Your task to perform on an android device: change the upload size in google photos Image 0: 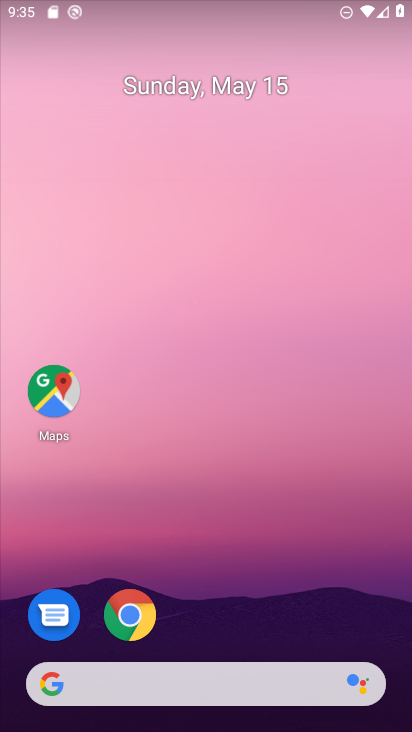
Step 0: drag from (177, 652) to (270, 125)
Your task to perform on an android device: change the upload size in google photos Image 1: 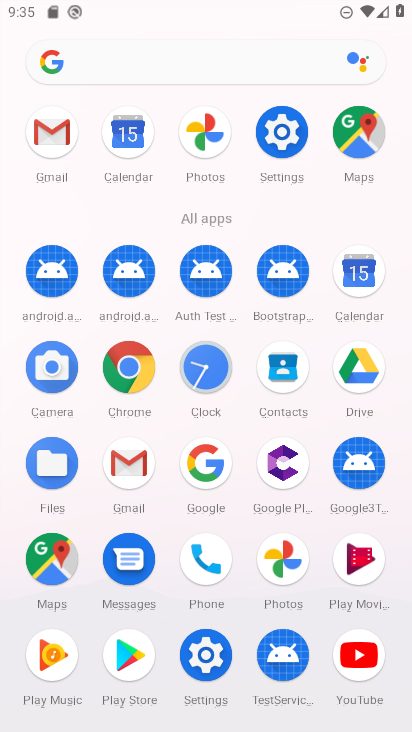
Step 1: click (284, 558)
Your task to perform on an android device: change the upload size in google photos Image 2: 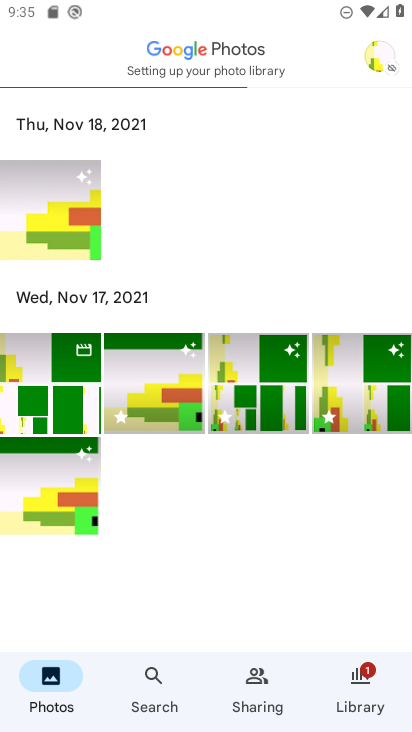
Step 2: click (373, 69)
Your task to perform on an android device: change the upload size in google photos Image 3: 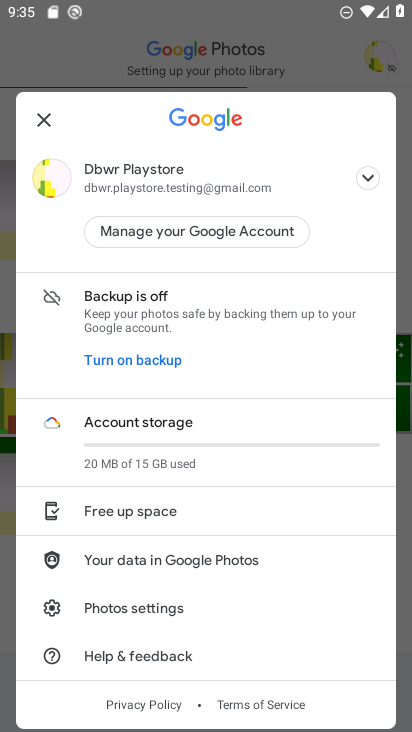
Step 3: drag from (252, 649) to (281, 505)
Your task to perform on an android device: change the upload size in google photos Image 4: 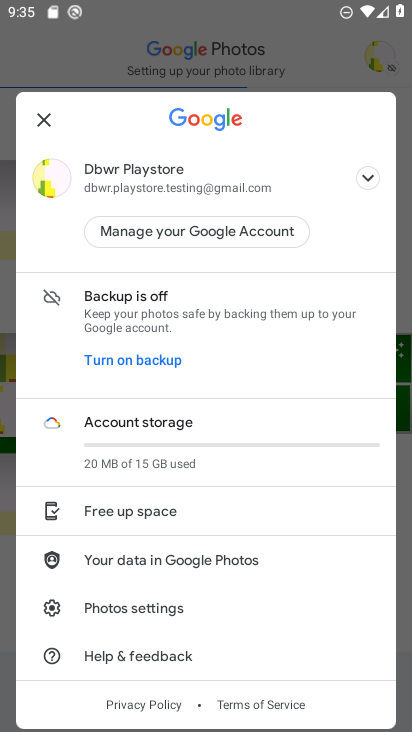
Step 4: click (162, 615)
Your task to perform on an android device: change the upload size in google photos Image 5: 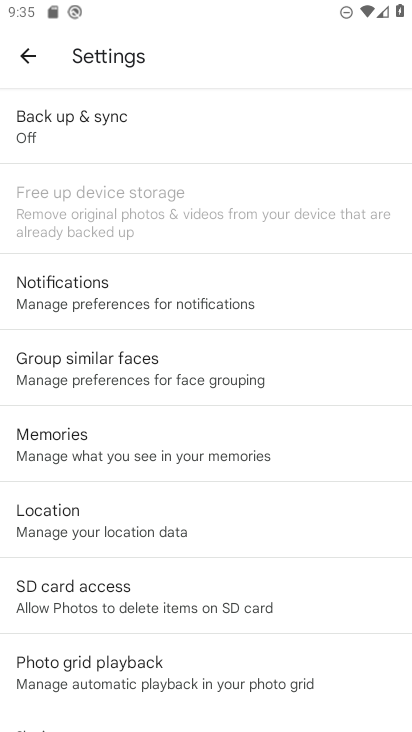
Step 5: click (179, 134)
Your task to perform on an android device: change the upload size in google photos Image 6: 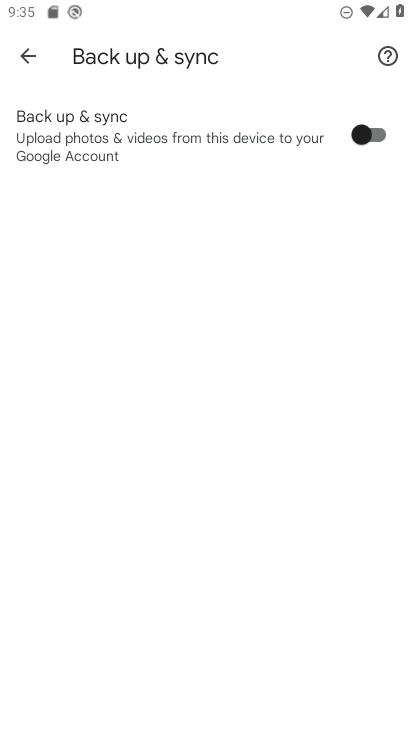
Step 6: click (380, 132)
Your task to perform on an android device: change the upload size in google photos Image 7: 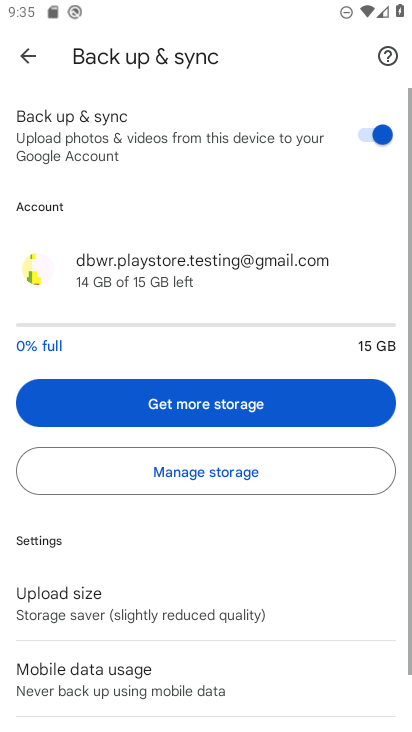
Step 7: drag from (267, 640) to (335, 436)
Your task to perform on an android device: change the upload size in google photos Image 8: 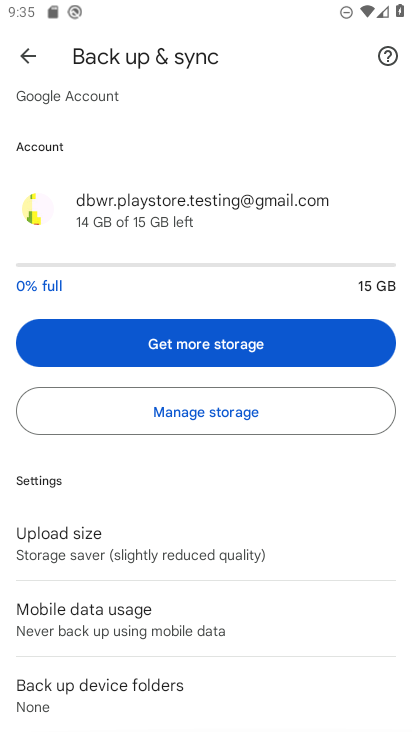
Step 8: click (203, 562)
Your task to perform on an android device: change the upload size in google photos Image 9: 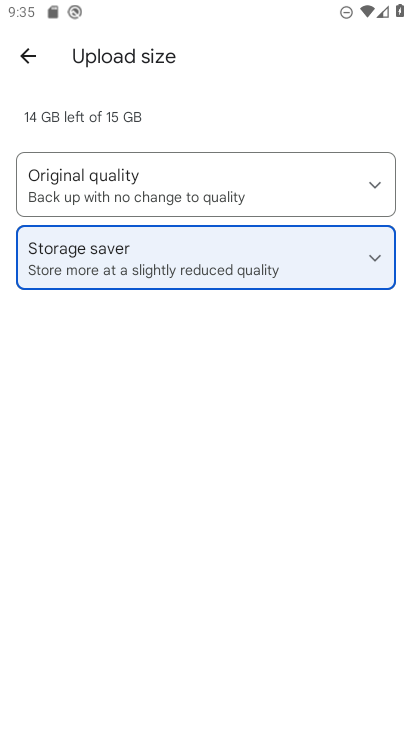
Step 9: click (178, 175)
Your task to perform on an android device: change the upload size in google photos Image 10: 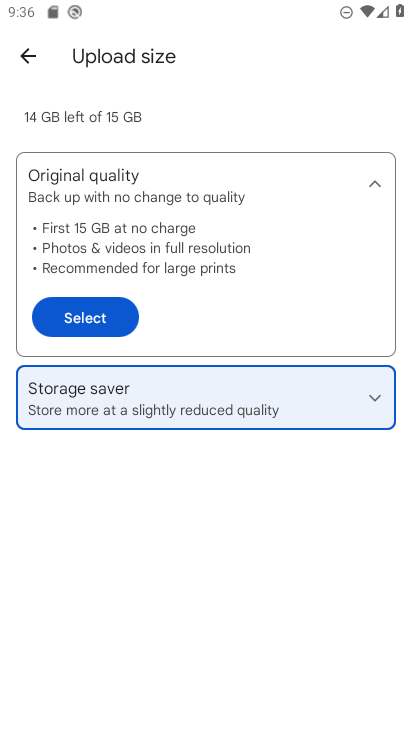
Step 10: click (96, 310)
Your task to perform on an android device: change the upload size in google photos Image 11: 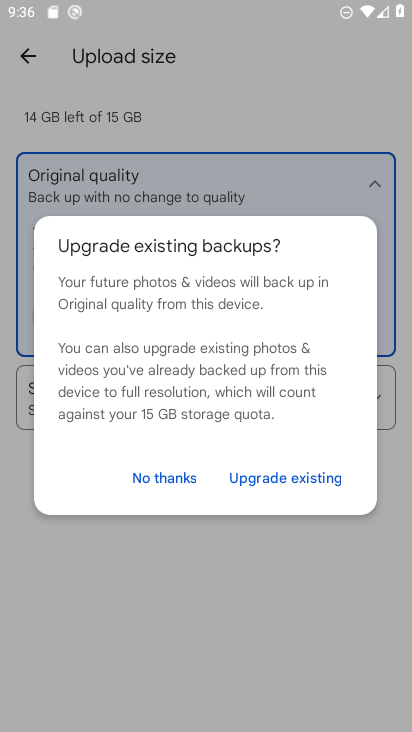
Step 11: click (305, 480)
Your task to perform on an android device: change the upload size in google photos Image 12: 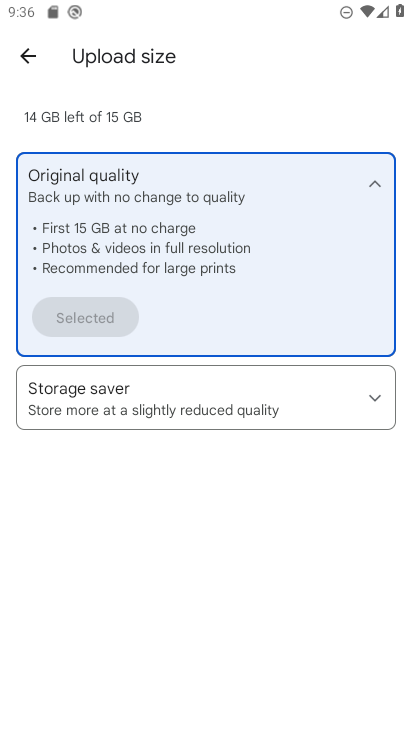
Step 12: task complete